Your task to perform on an android device: toggle javascript in the chrome app Image 0: 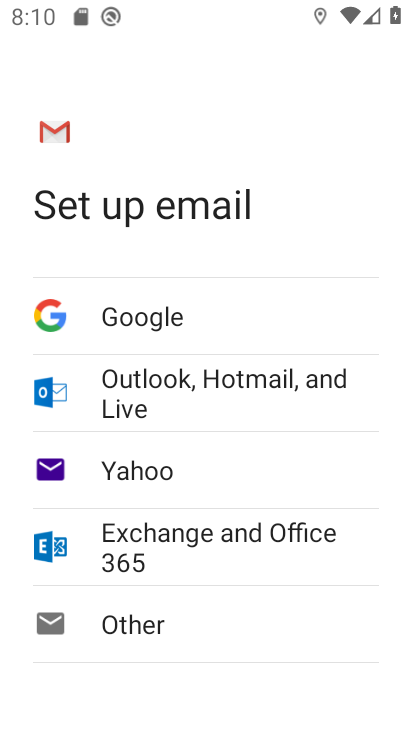
Step 0: press home button
Your task to perform on an android device: toggle javascript in the chrome app Image 1: 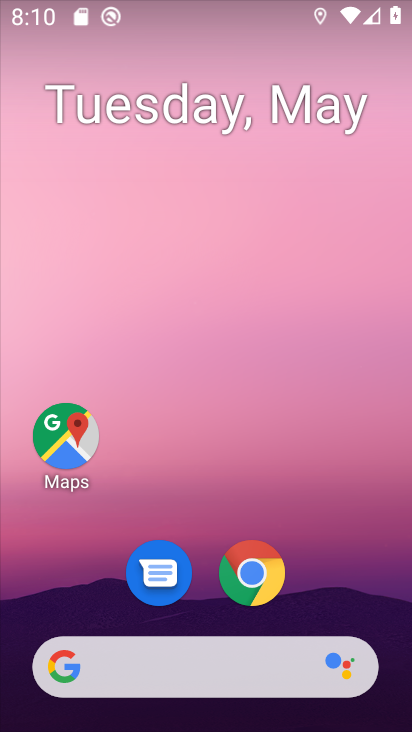
Step 1: click (264, 574)
Your task to perform on an android device: toggle javascript in the chrome app Image 2: 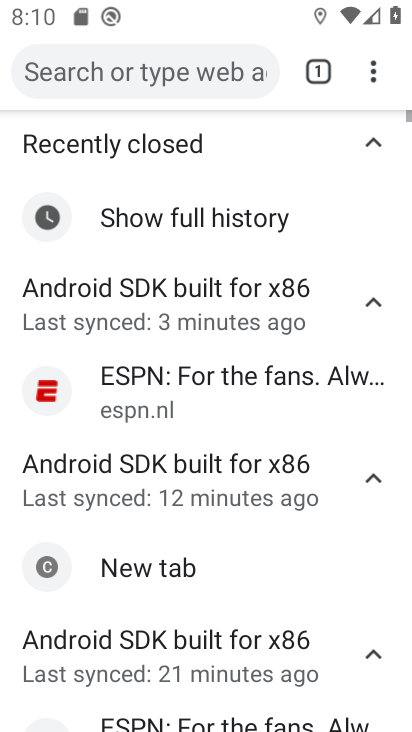
Step 2: click (369, 67)
Your task to perform on an android device: toggle javascript in the chrome app Image 3: 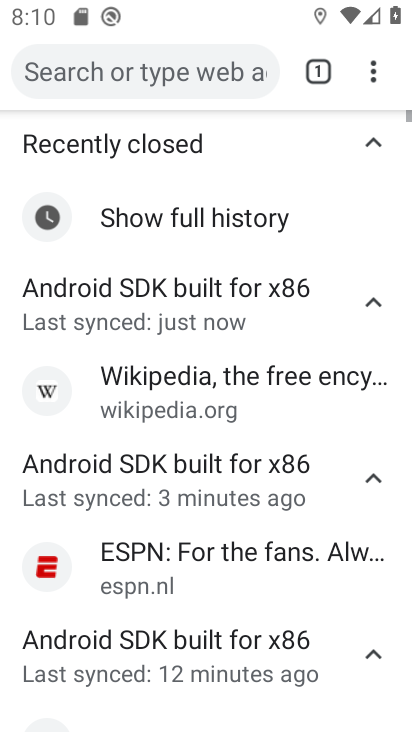
Step 3: click (373, 66)
Your task to perform on an android device: toggle javascript in the chrome app Image 4: 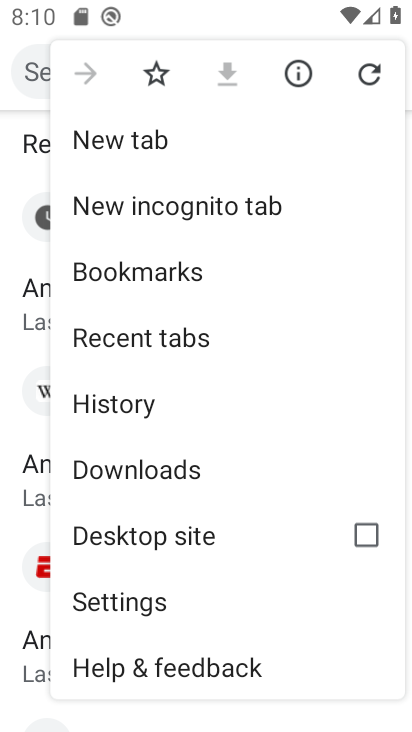
Step 4: drag from (271, 640) to (268, 353)
Your task to perform on an android device: toggle javascript in the chrome app Image 5: 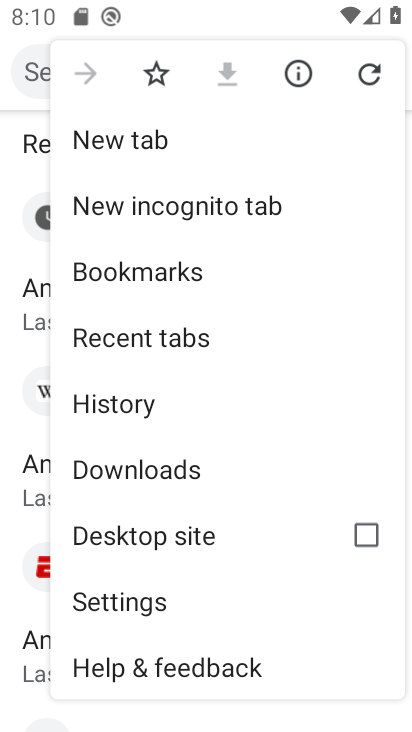
Step 5: click (102, 596)
Your task to perform on an android device: toggle javascript in the chrome app Image 6: 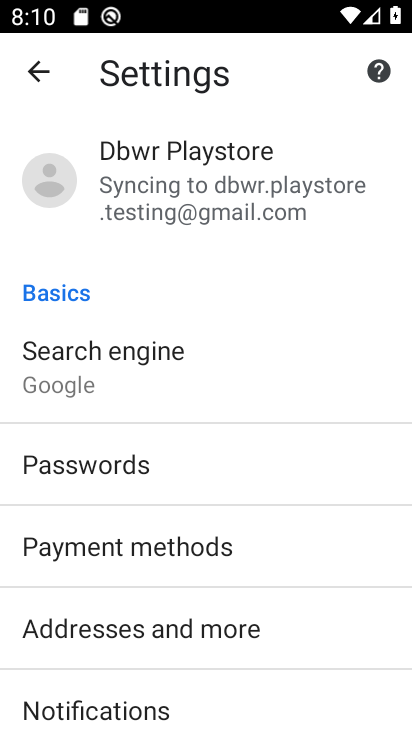
Step 6: drag from (284, 706) to (307, 135)
Your task to perform on an android device: toggle javascript in the chrome app Image 7: 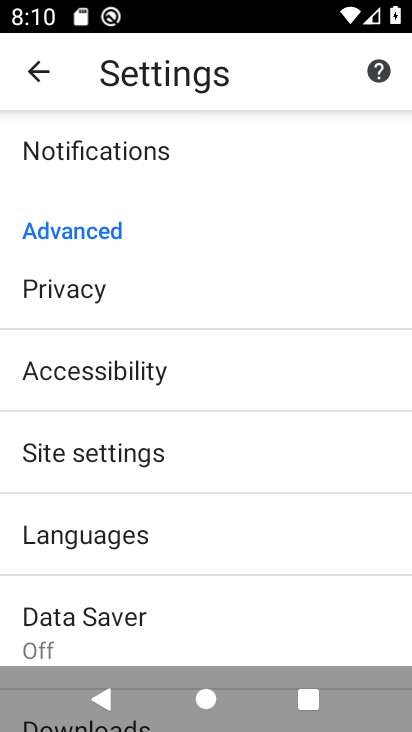
Step 7: click (79, 447)
Your task to perform on an android device: toggle javascript in the chrome app Image 8: 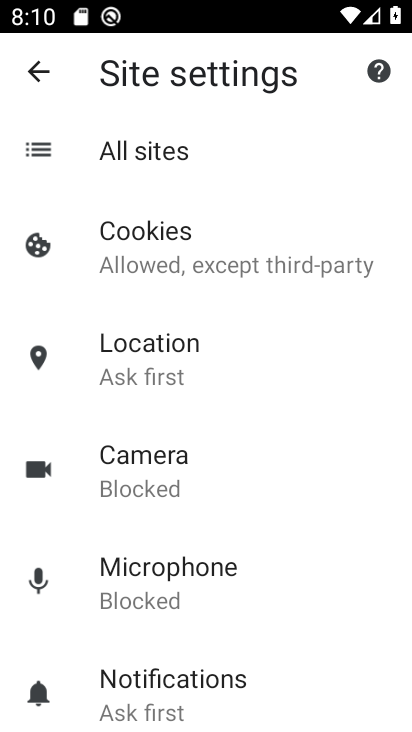
Step 8: drag from (288, 716) to (283, 386)
Your task to perform on an android device: toggle javascript in the chrome app Image 9: 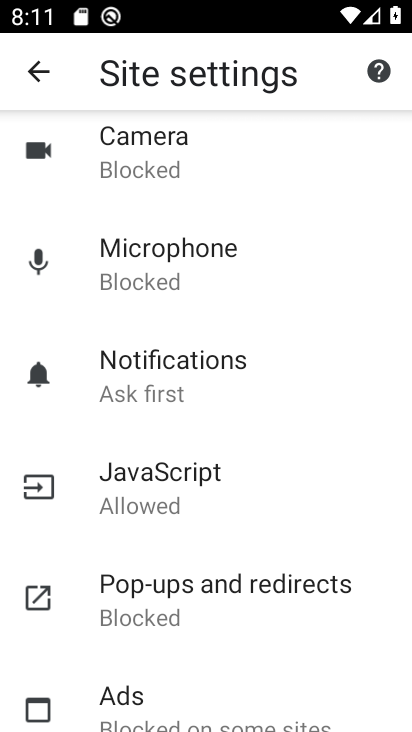
Step 9: click (141, 481)
Your task to perform on an android device: toggle javascript in the chrome app Image 10: 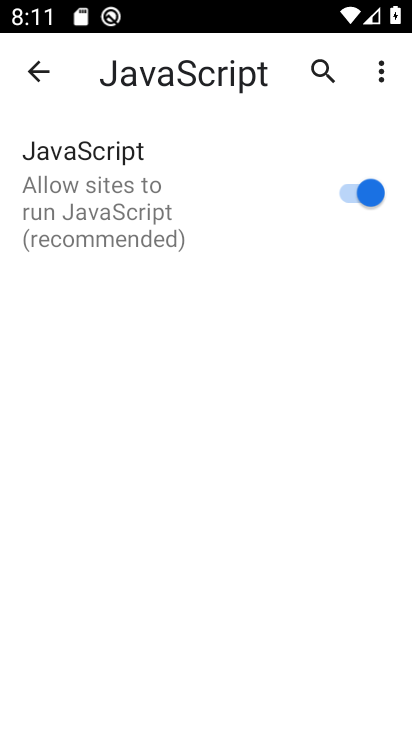
Step 10: click (141, 473)
Your task to perform on an android device: toggle javascript in the chrome app Image 11: 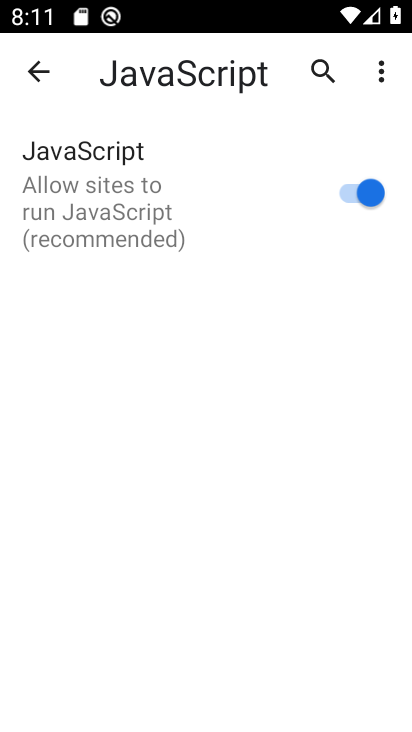
Step 11: click (140, 469)
Your task to perform on an android device: toggle javascript in the chrome app Image 12: 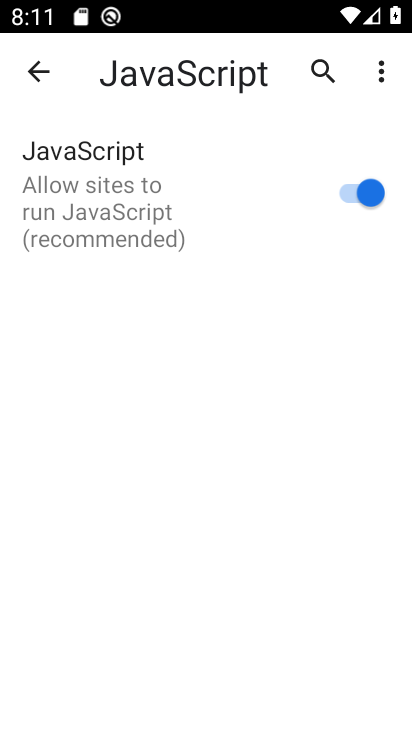
Step 12: click (354, 187)
Your task to perform on an android device: toggle javascript in the chrome app Image 13: 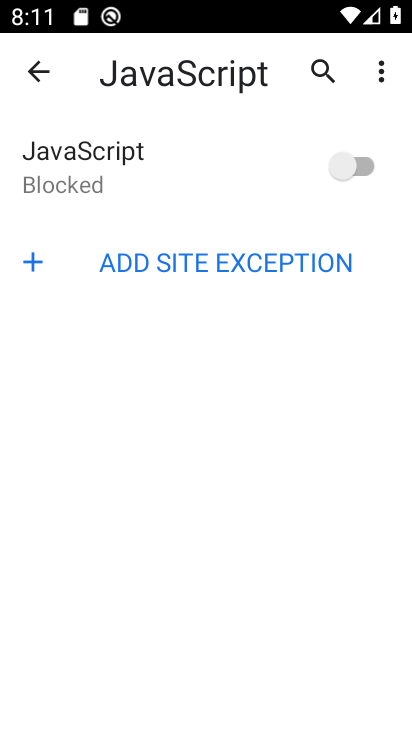
Step 13: task complete